Your task to perform on an android device: Search for "usb-b" on amazon.com, select the first entry, and add it to the cart. Image 0: 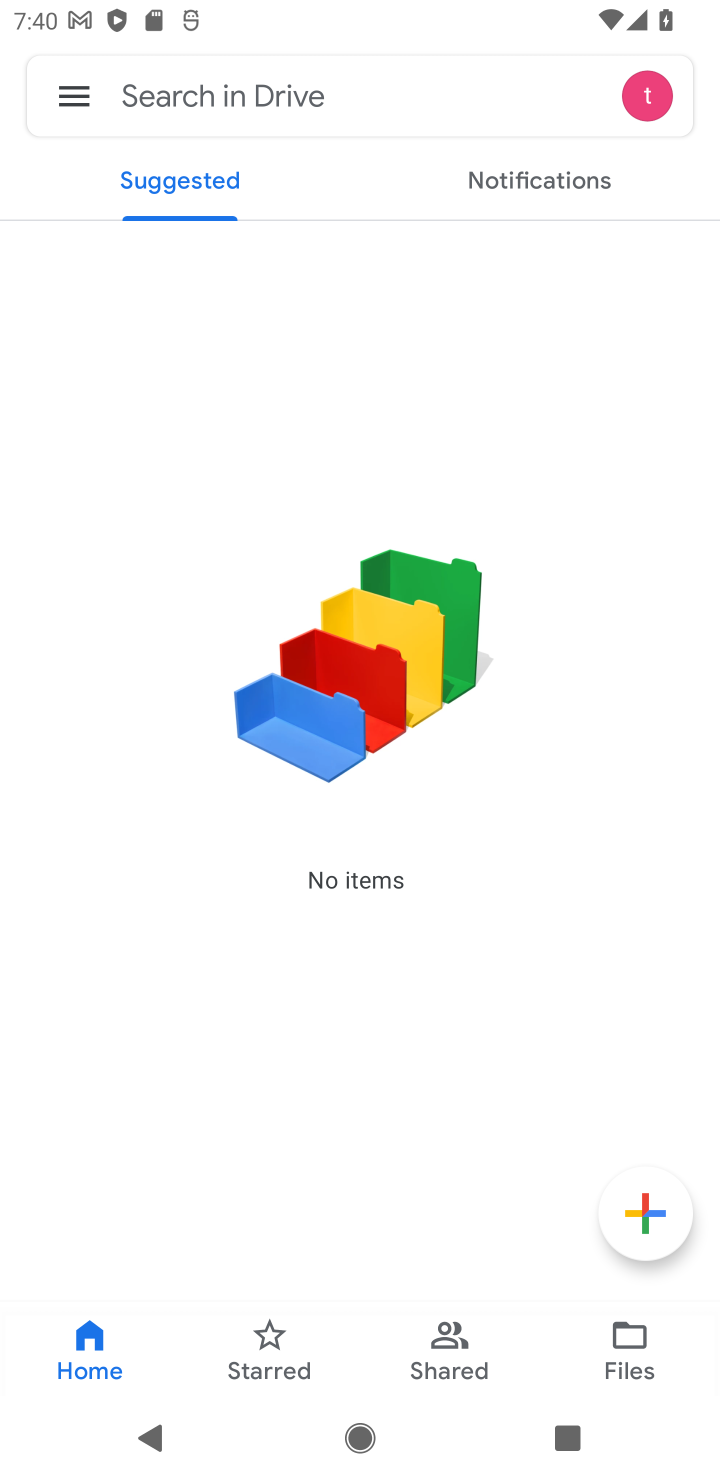
Step 0: task complete